Your task to perform on an android device: change the clock display to digital Image 0: 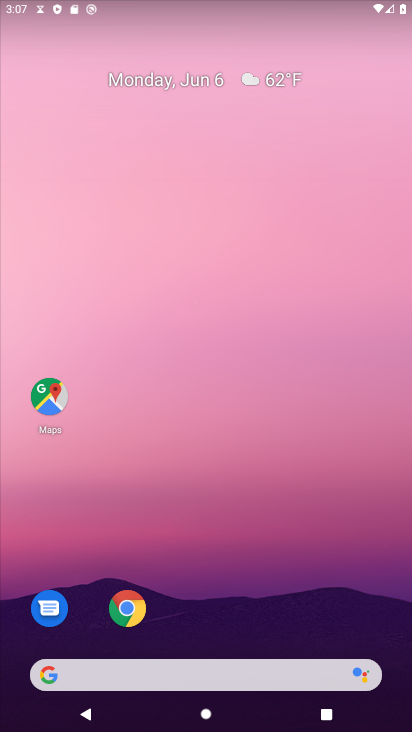
Step 0: drag from (277, 594) to (234, 91)
Your task to perform on an android device: change the clock display to digital Image 1: 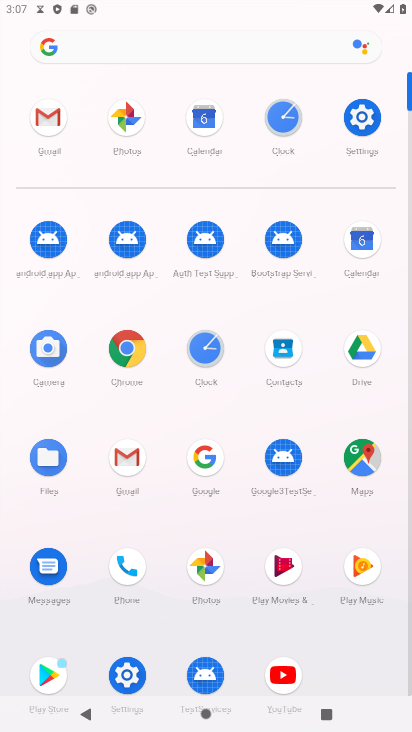
Step 1: click (284, 124)
Your task to perform on an android device: change the clock display to digital Image 2: 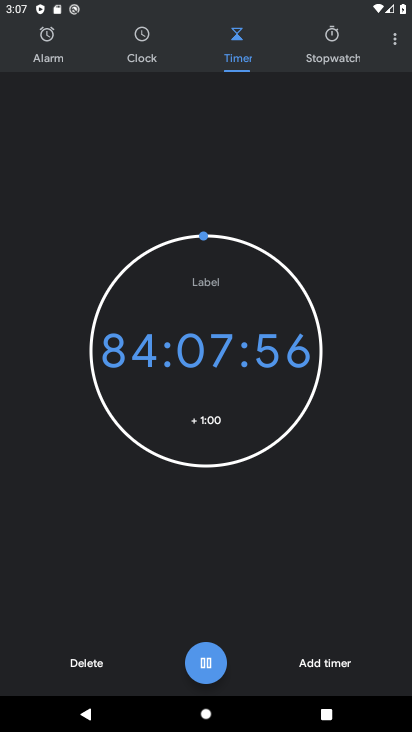
Step 2: click (398, 41)
Your task to perform on an android device: change the clock display to digital Image 3: 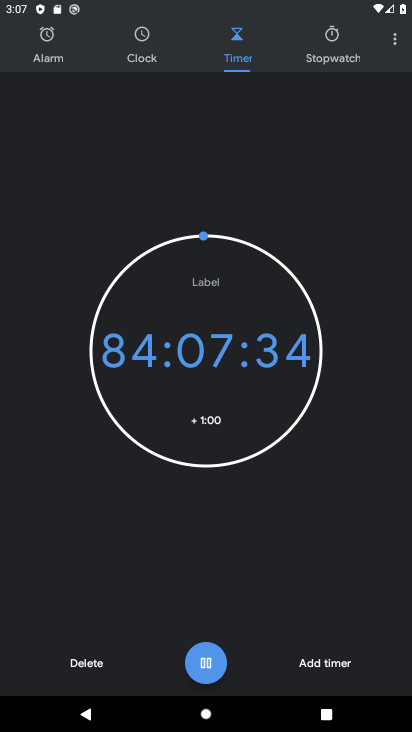
Step 3: click (395, 43)
Your task to perform on an android device: change the clock display to digital Image 4: 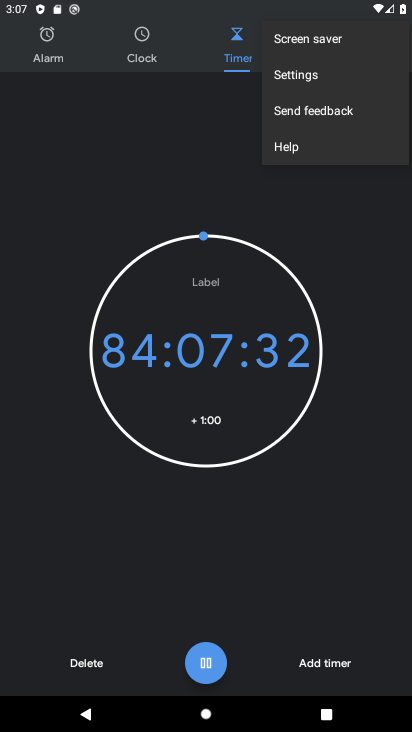
Step 4: click (329, 73)
Your task to perform on an android device: change the clock display to digital Image 5: 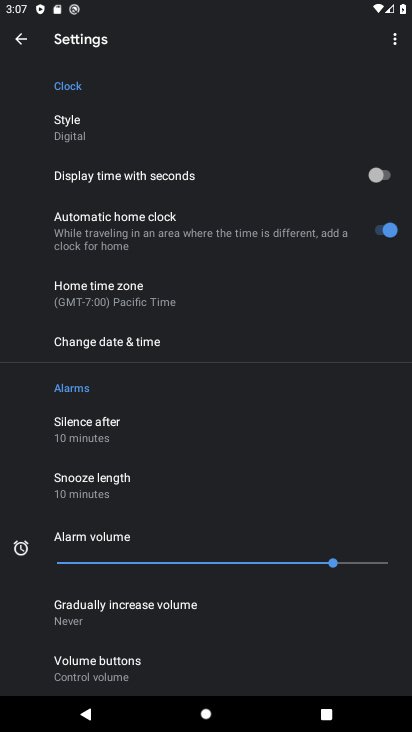
Step 5: click (123, 134)
Your task to perform on an android device: change the clock display to digital Image 6: 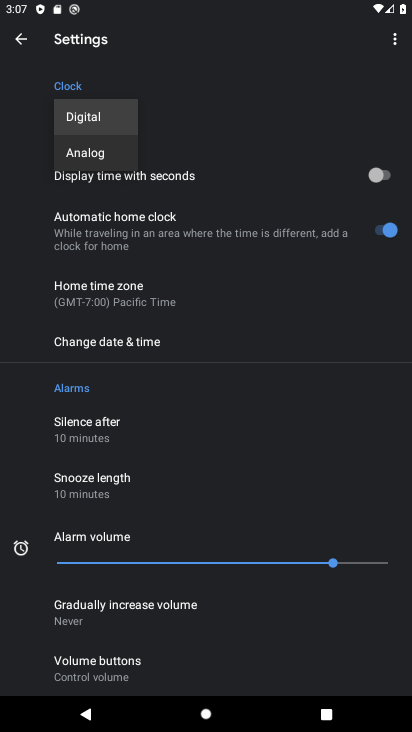
Step 6: click (124, 110)
Your task to perform on an android device: change the clock display to digital Image 7: 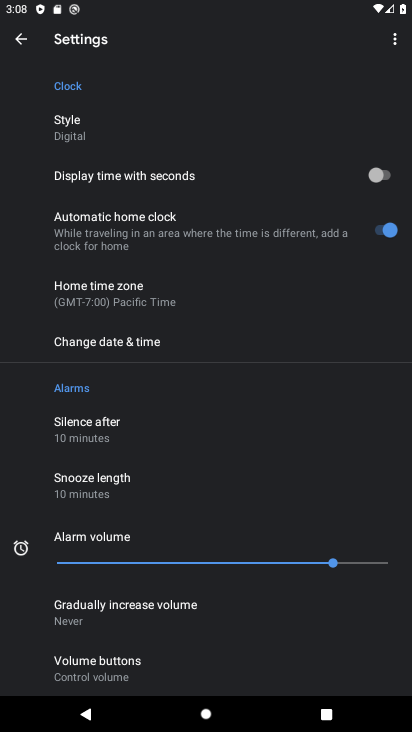
Step 7: task complete